Your task to perform on an android device: Open ESPN.com Image 0: 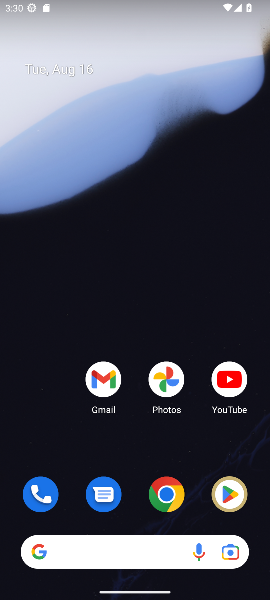
Step 0: click (177, 491)
Your task to perform on an android device: Open ESPN.com Image 1: 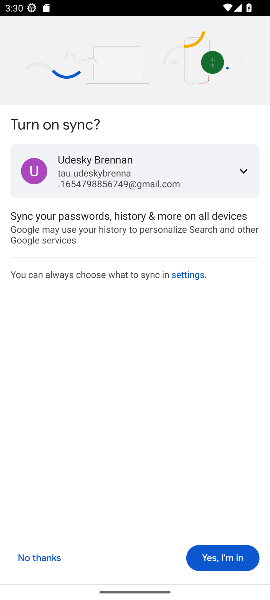
Step 1: click (208, 555)
Your task to perform on an android device: Open ESPN.com Image 2: 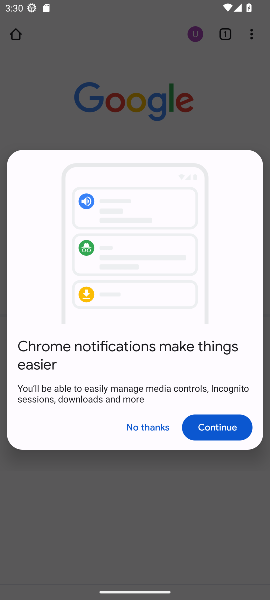
Step 2: click (239, 430)
Your task to perform on an android device: Open ESPN.com Image 3: 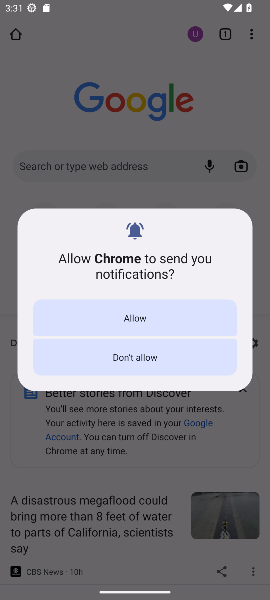
Step 3: click (145, 323)
Your task to perform on an android device: Open ESPN.com Image 4: 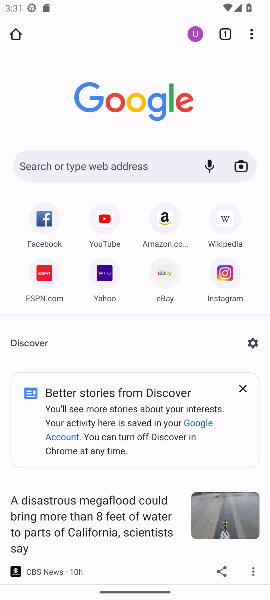
Step 4: click (40, 273)
Your task to perform on an android device: Open ESPN.com Image 5: 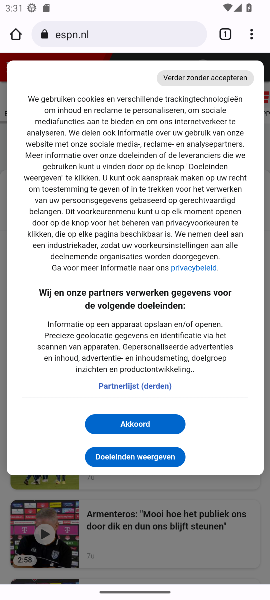
Step 5: click (128, 422)
Your task to perform on an android device: Open ESPN.com Image 6: 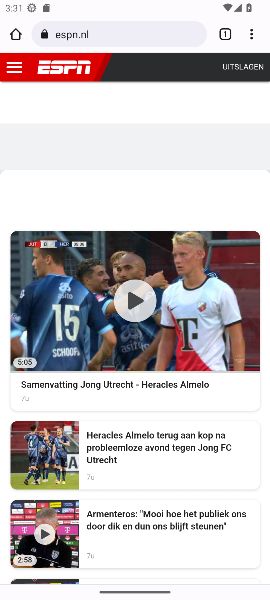
Step 6: task complete